Your task to perform on an android device: turn on airplane mode Image 0: 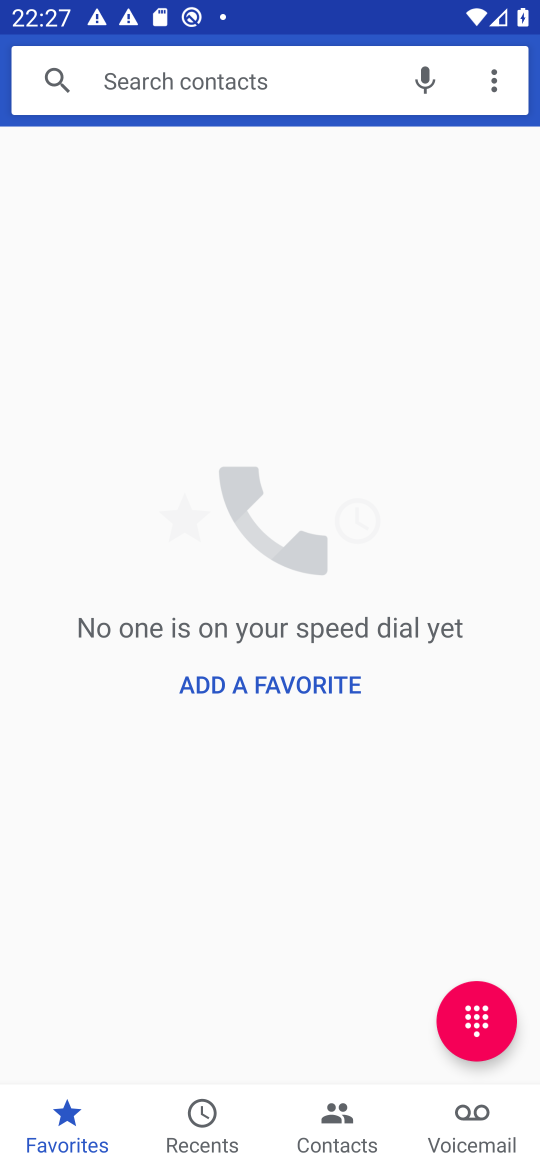
Step 0: press home button
Your task to perform on an android device: turn on airplane mode Image 1: 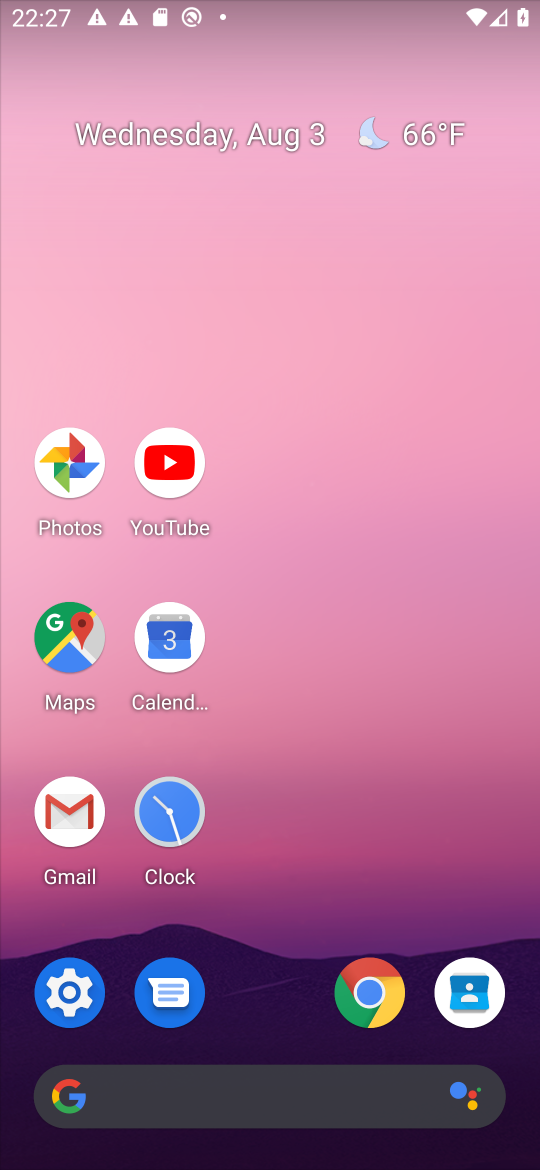
Step 1: click (72, 988)
Your task to perform on an android device: turn on airplane mode Image 2: 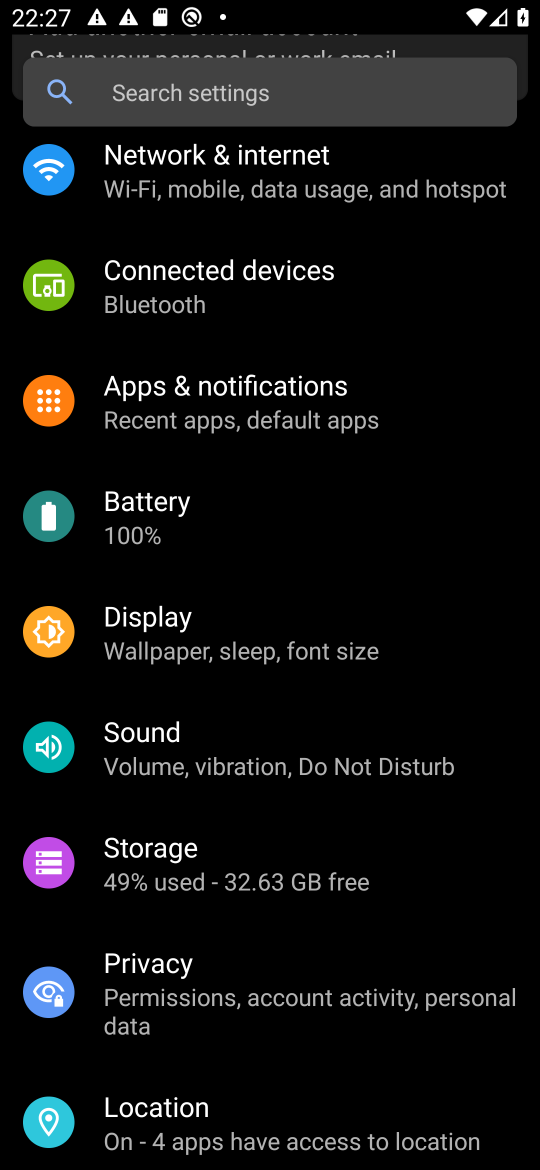
Step 2: drag from (364, 296) to (379, 814)
Your task to perform on an android device: turn on airplane mode Image 3: 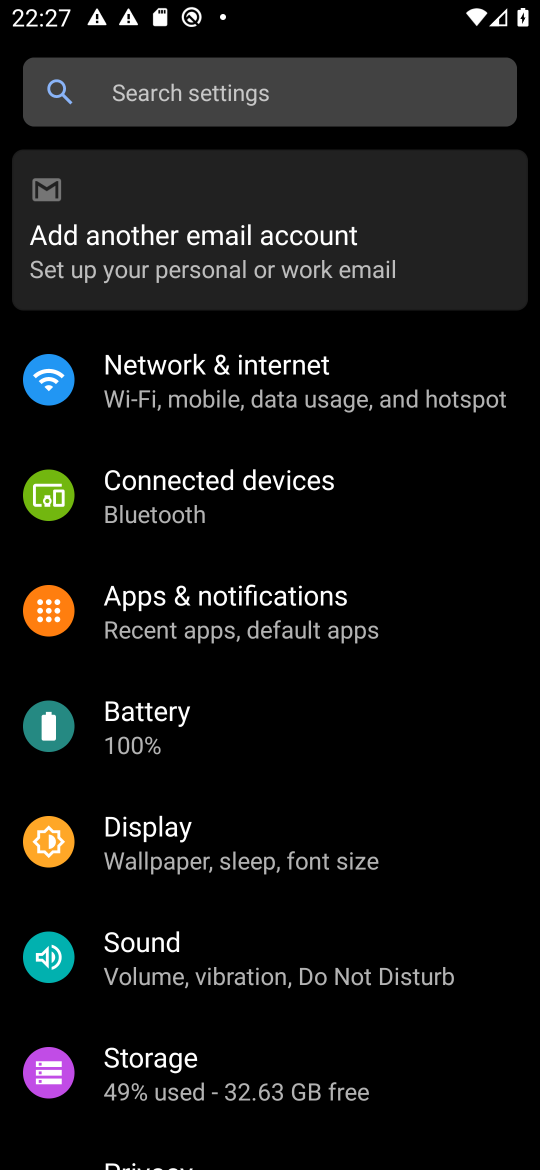
Step 3: click (215, 361)
Your task to perform on an android device: turn on airplane mode Image 4: 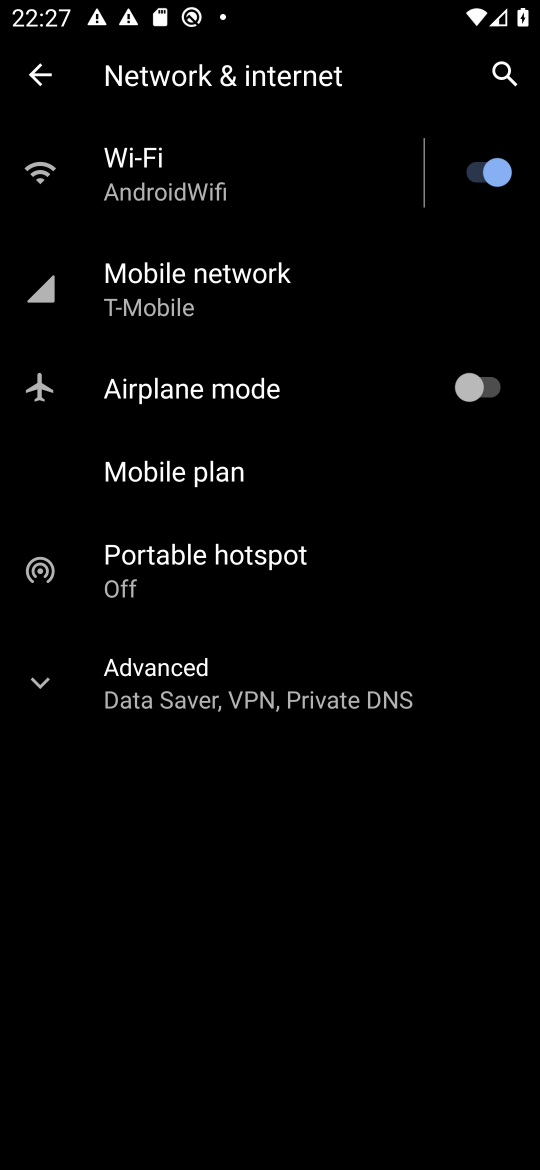
Step 4: click (473, 390)
Your task to perform on an android device: turn on airplane mode Image 5: 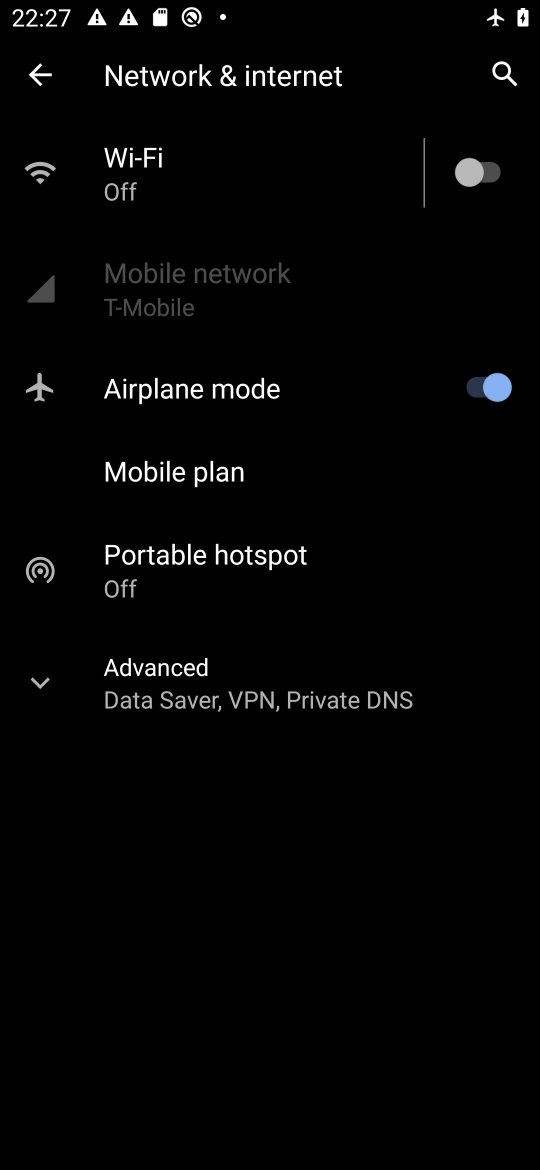
Step 5: task complete